Your task to perform on an android device: Search for Mexican restaurants on Maps Image 0: 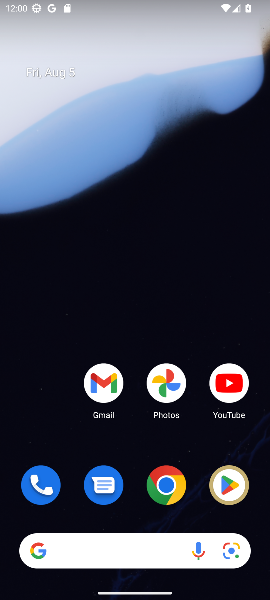
Step 0: drag from (135, 446) to (126, 133)
Your task to perform on an android device: Search for Mexican restaurants on Maps Image 1: 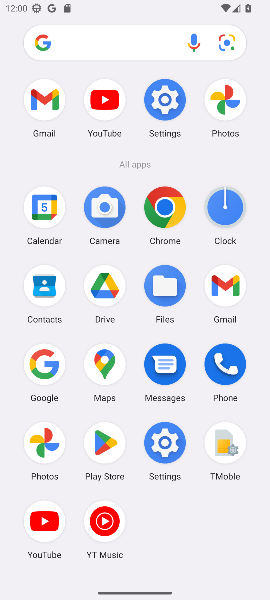
Step 1: click (108, 363)
Your task to perform on an android device: Search for Mexican restaurants on Maps Image 2: 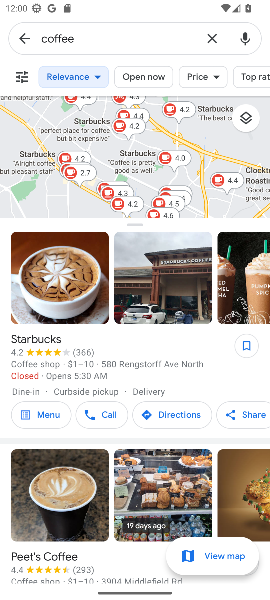
Step 2: click (212, 37)
Your task to perform on an android device: Search for Mexican restaurants on Maps Image 3: 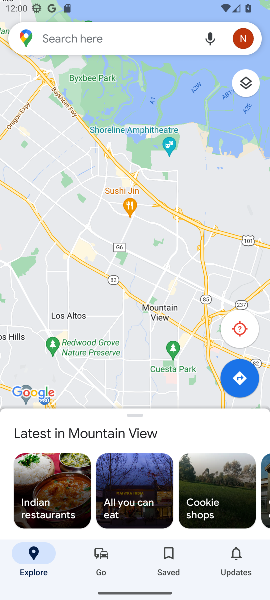
Step 3: click (90, 37)
Your task to perform on an android device: Search for Mexican restaurants on Maps Image 4: 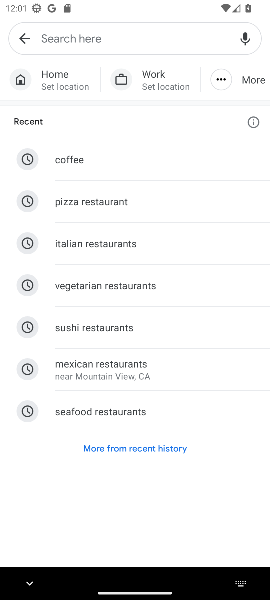
Step 4: click (124, 362)
Your task to perform on an android device: Search for Mexican restaurants on Maps Image 5: 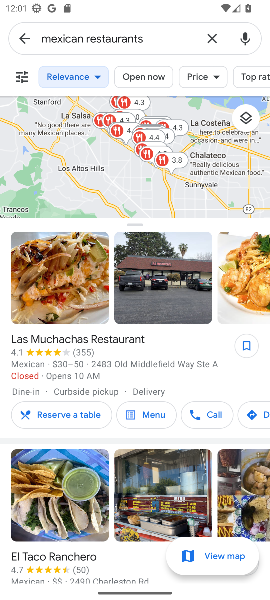
Step 5: task complete